Your task to perform on an android device: Open Google Chrome and open the bookmarks view Image 0: 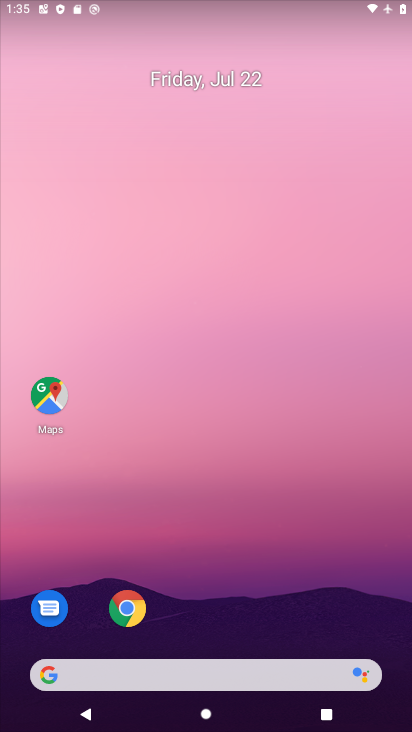
Step 0: drag from (242, 578) to (241, 120)
Your task to perform on an android device: Open Google Chrome and open the bookmarks view Image 1: 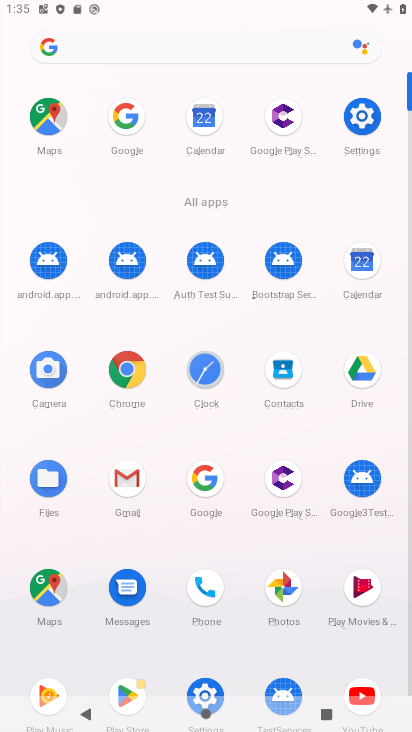
Step 1: click (119, 368)
Your task to perform on an android device: Open Google Chrome and open the bookmarks view Image 2: 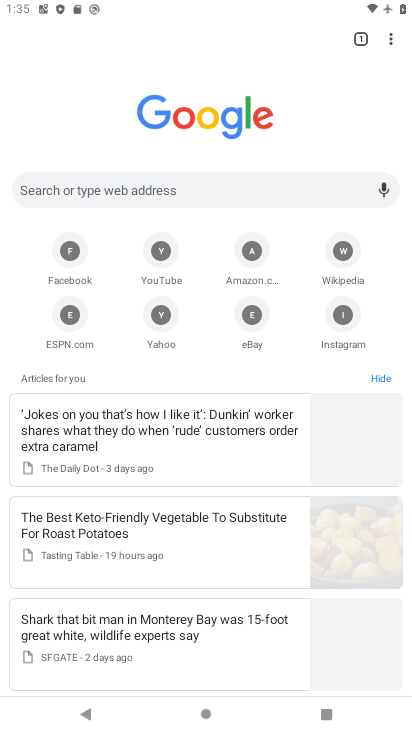
Step 2: click (391, 39)
Your task to perform on an android device: Open Google Chrome and open the bookmarks view Image 3: 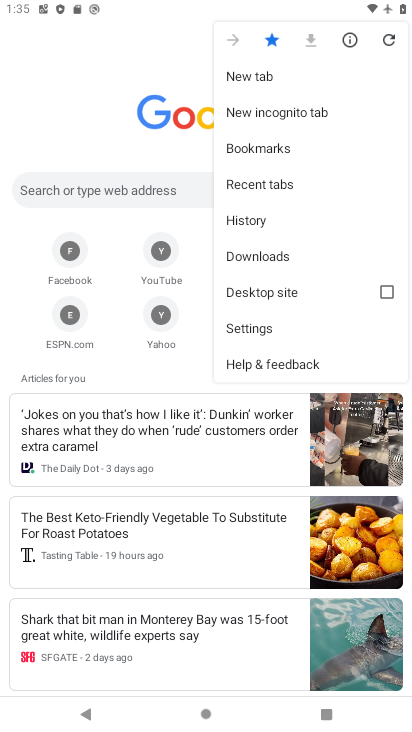
Step 3: click (268, 152)
Your task to perform on an android device: Open Google Chrome and open the bookmarks view Image 4: 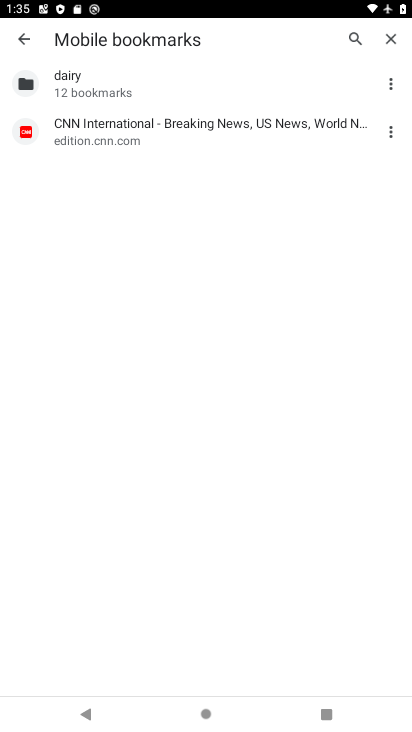
Step 4: task complete